Your task to perform on an android device: Open CNN.com Image 0: 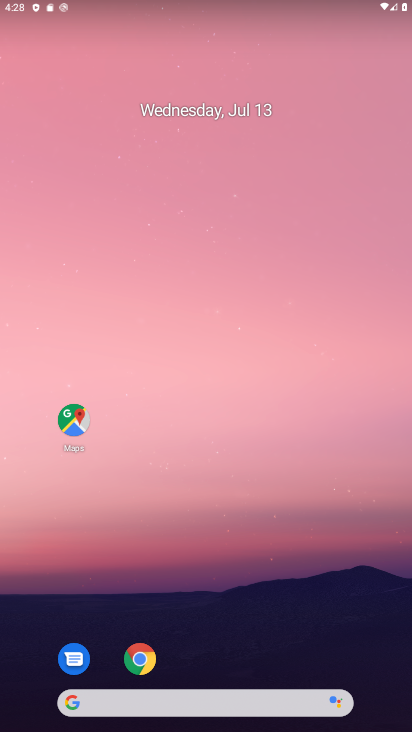
Step 0: drag from (316, 624) to (279, 135)
Your task to perform on an android device: Open CNN.com Image 1: 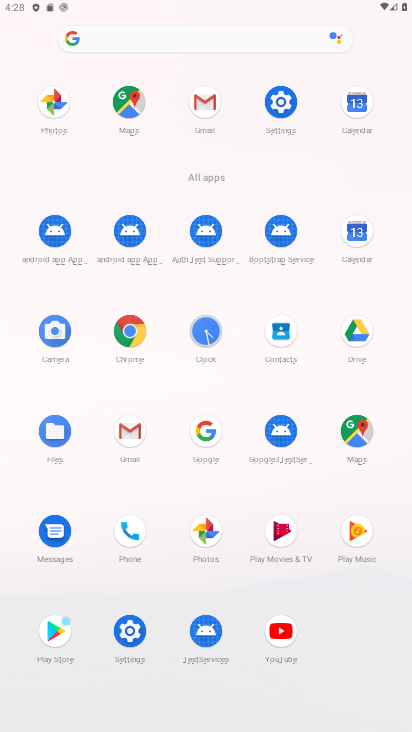
Step 1: click (133, 329)
Your task to perform on an android device: Open CNN.com Image 2: 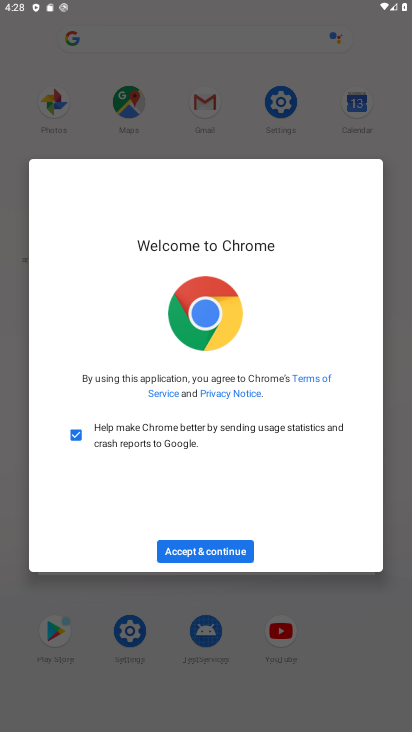
Step 2: click (237, 549)
Your task to perform on an android device: Open CNN.com Image 3: 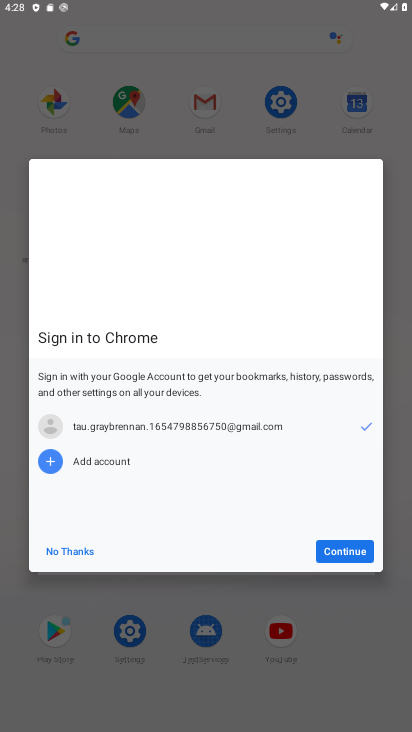
Step 3: click (352, 557)
Your task to perform on an android device: Open CNN.com Image 4: 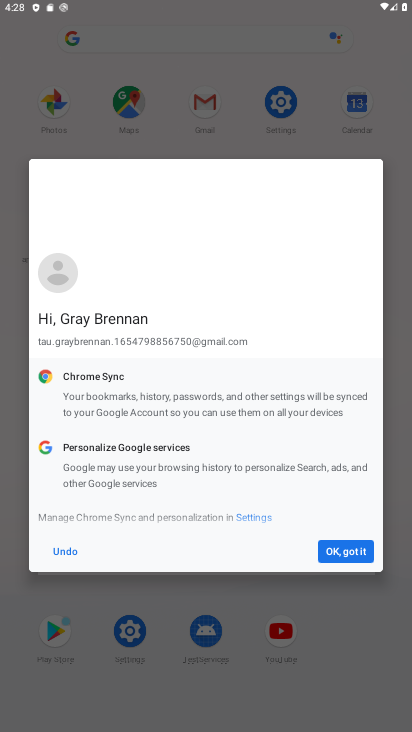
Step 4: click (348, 553)
Your task to perform on an android device: Open CNN.com Image 5: 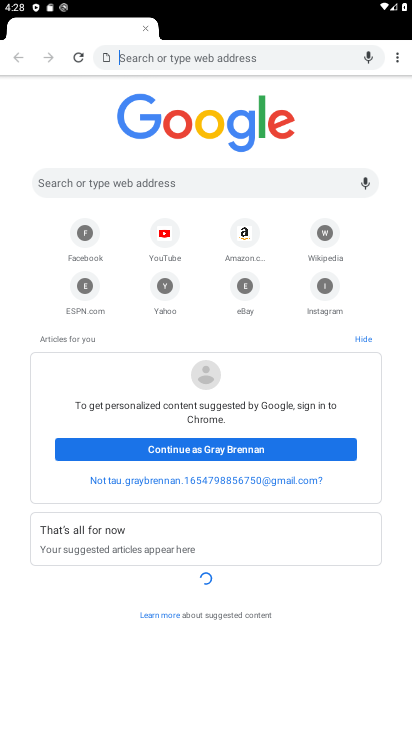
Step 5: click (198, 53)
Your task to perform on an android device: Open CNN.com Image 6: 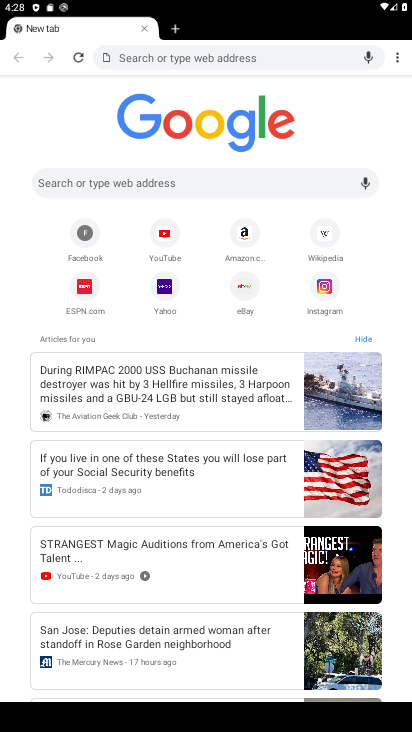
Step 6: type "cnn.com"
Your task to perform on an android device: Open CNN.com Image 7: 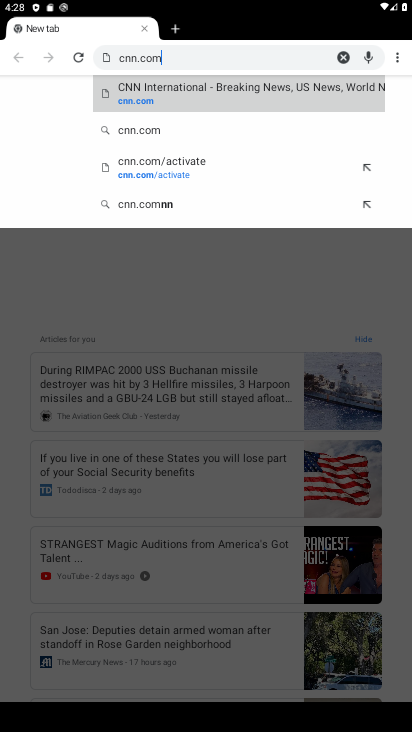
Step 7: click (160, 93)
Your task to perform on an android device: Open CNN.com Image 8: 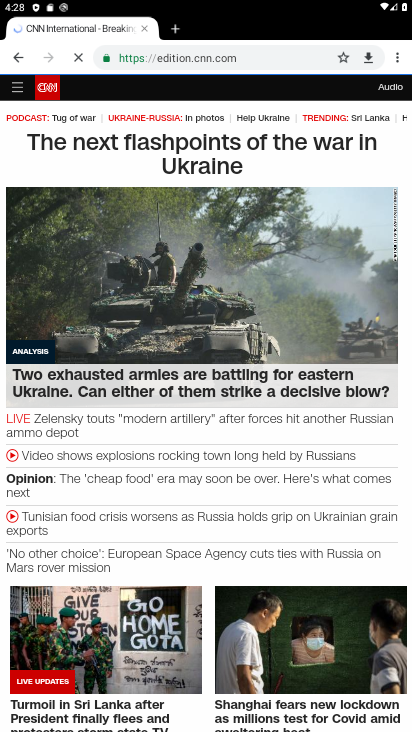
Step 8: task complete